Your task to perform on an android device: Search for energizer triple a on ebay.com, select the first entry, and add it to the cart. Image 0: 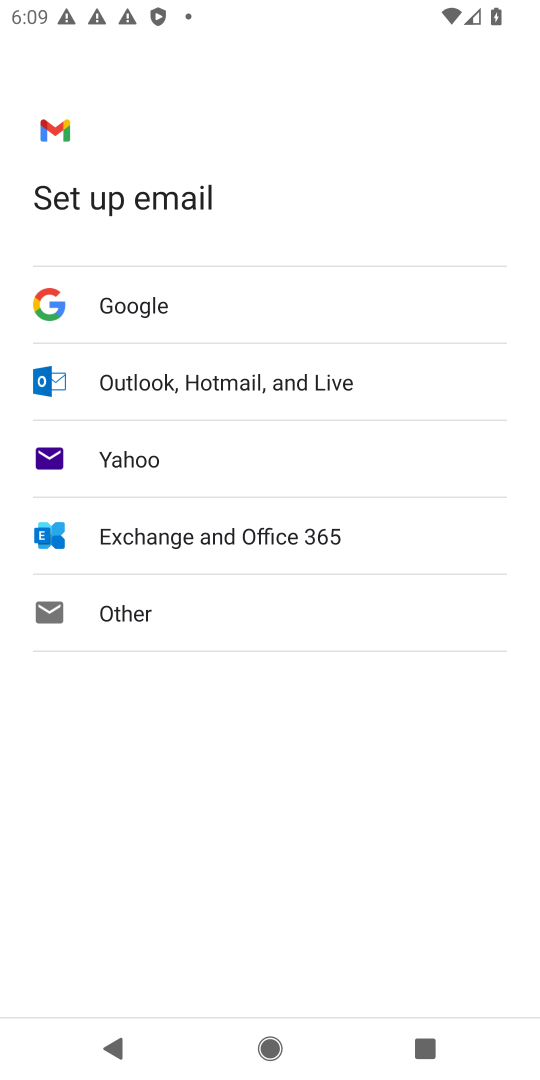
Step 0: press home button
Your task to perform on an android device: Search for energizer triple a on ebay.com, select the first entry, and add it to the cart. Image 1: 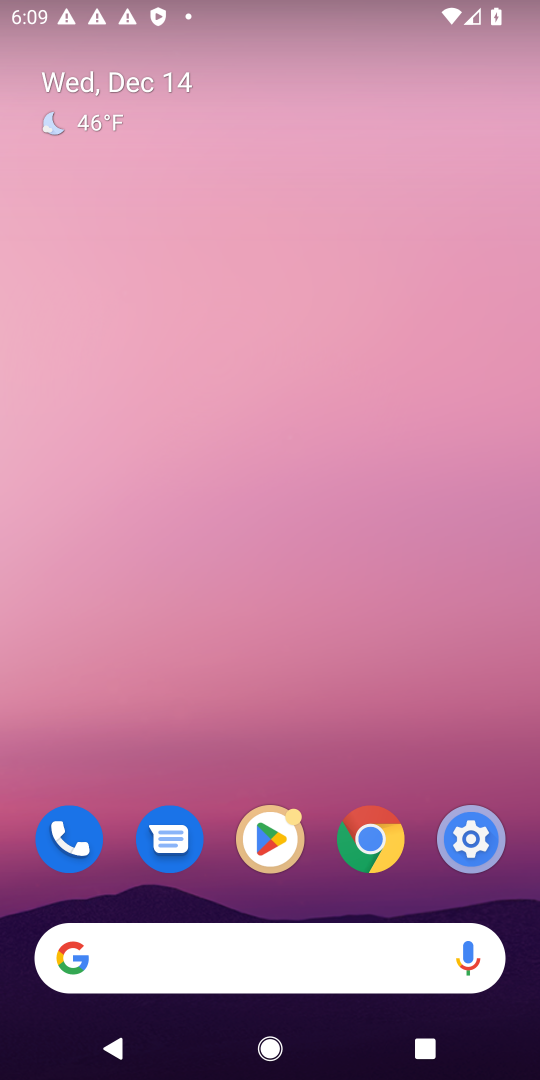
Step 1: click (221, 962)
Your task to perform on an android device: Search for energizer triple a on ebay.com, select the first entry, and add it to the cart. Image 2: 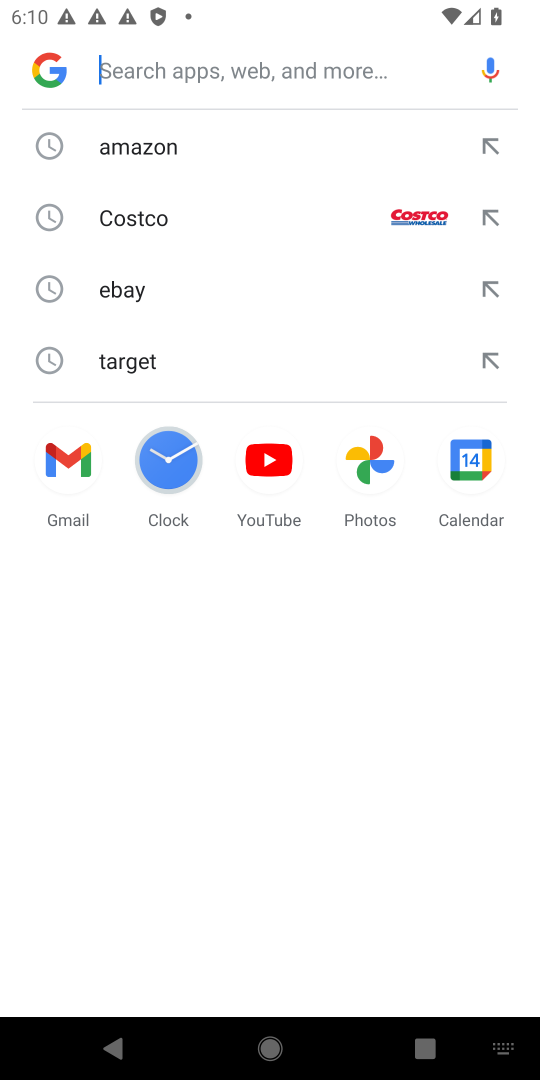
Step 2: click (163, 293)
Your task to perform on an android device: Search for energizer triple a on ebay.com, select the first entry, and add it to the cart. Image 3: 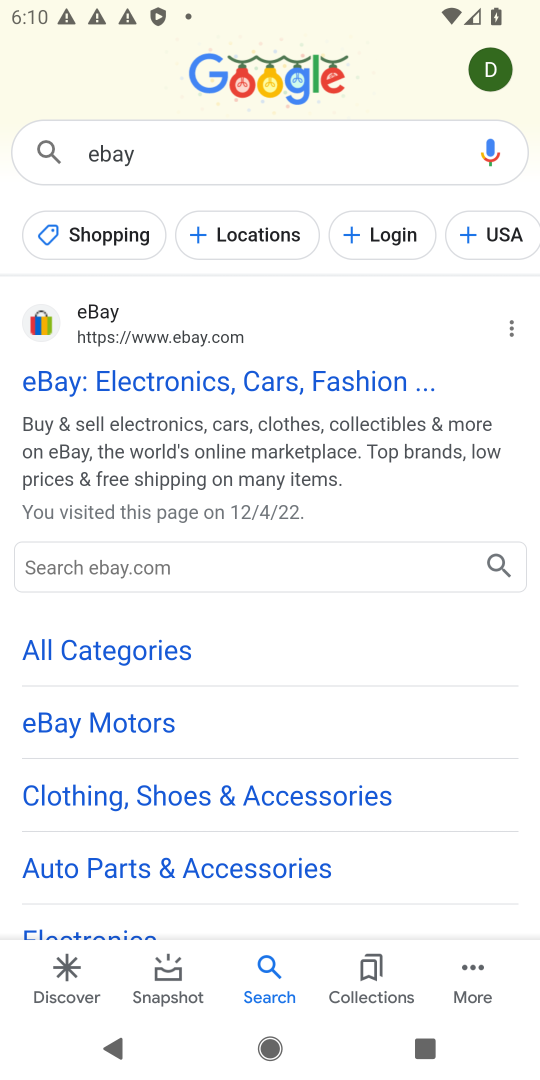
Step 3: click (191, 352)
Your task to perform on an android device: Search for energizer triple a on ebay.com, select the first entry, and add it to the cart. Image 4: 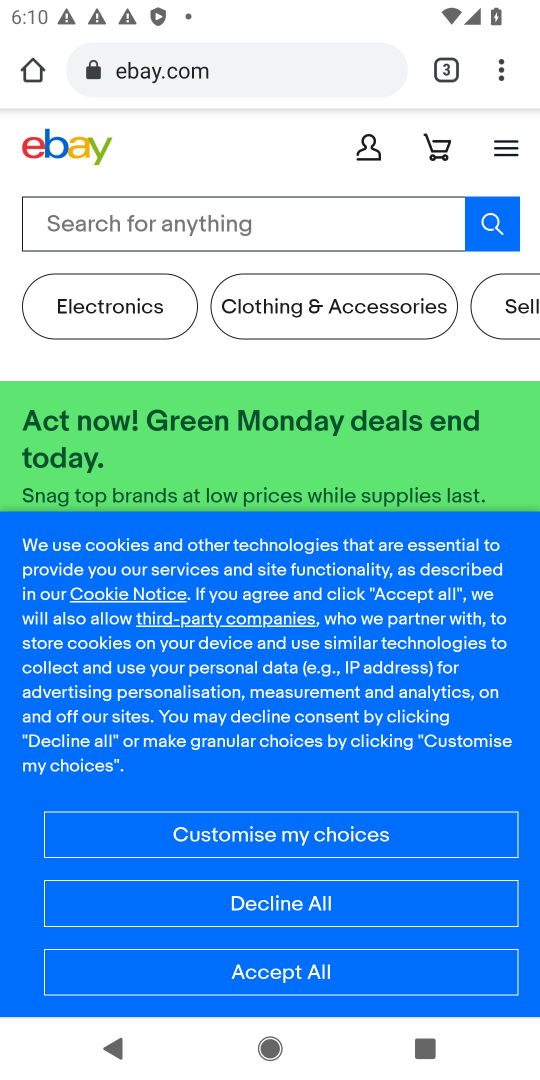
Step 4: click (158, 234)
Your task to perform on an android device: Search for energizer triple a on ebay.com, select the first entry, and add it to the cart. Image 5: 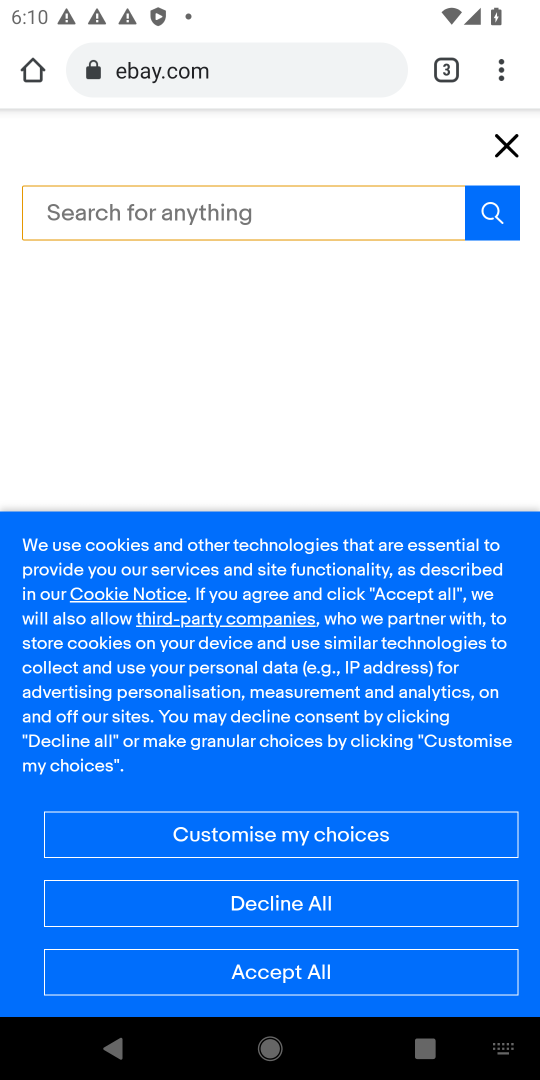
Step 5: type "energizer triplee a"
Your task to perform on an android device: Search for energizer triple a on ebay.com, select the first entry, and add it to the cart. Image 6: 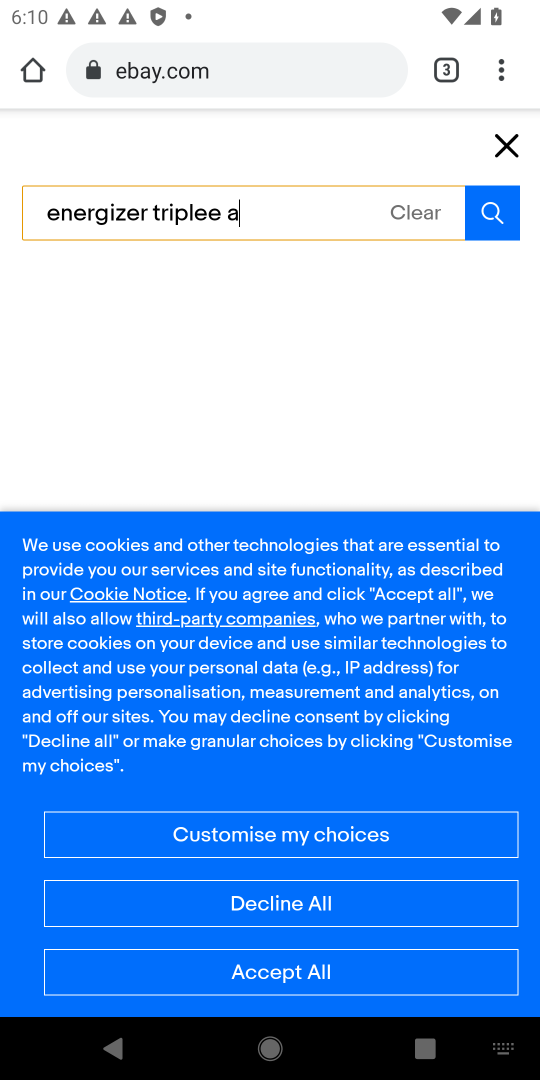
Step 6: click (493, 233)
Your task to perform on an android device: Search for energizer triple a on ebay.com, select the first entry, and add it to the cart. Image 7: 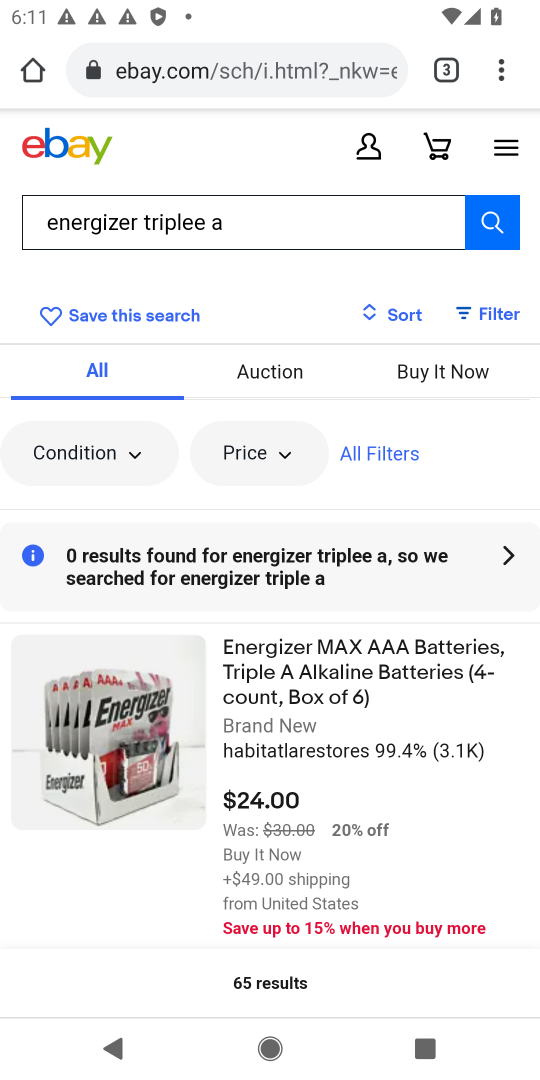
Step 7: click (290, 654)
Your task to perform on an android device: Search for energizer triple a on ebay.com, select the first entry, and add it to the cart. Image 8: 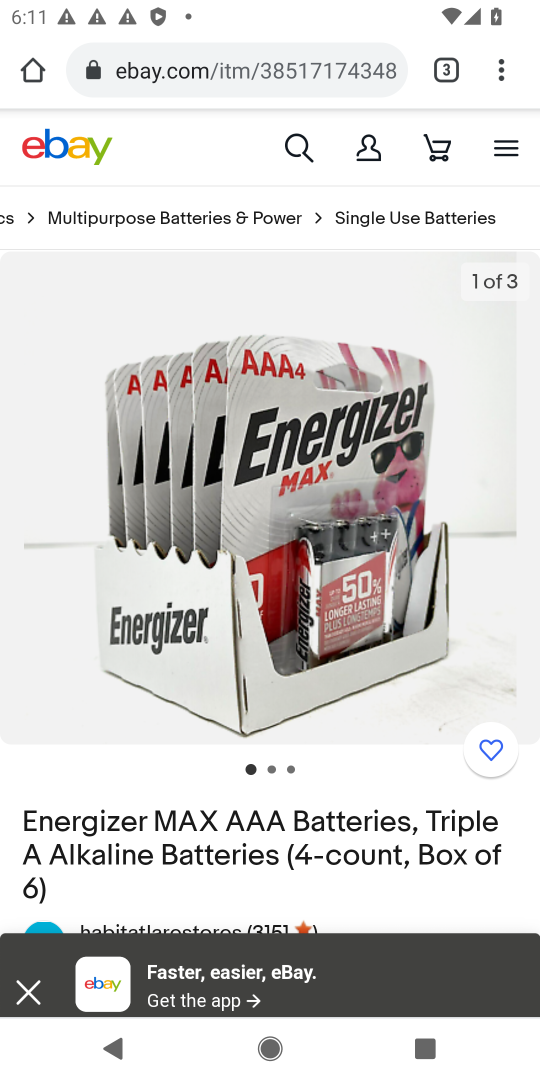
Step 8: drag from (201, 814) to (221, 578)
Your task to perform on an android device: Search for energizer triple a on ebay.com, select the first entry, and add it to the cart. Image 9: 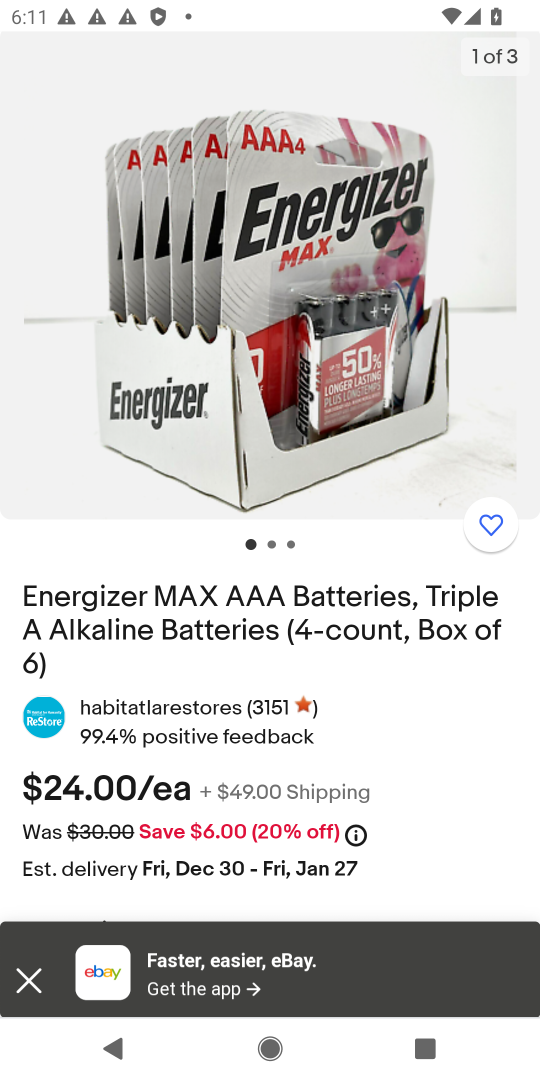
Step 9: click (29, 991)
Your task to perform on an android device: Search for energizer triple a on ebay.com, select the first entry, and add it to the cart. Image 10: 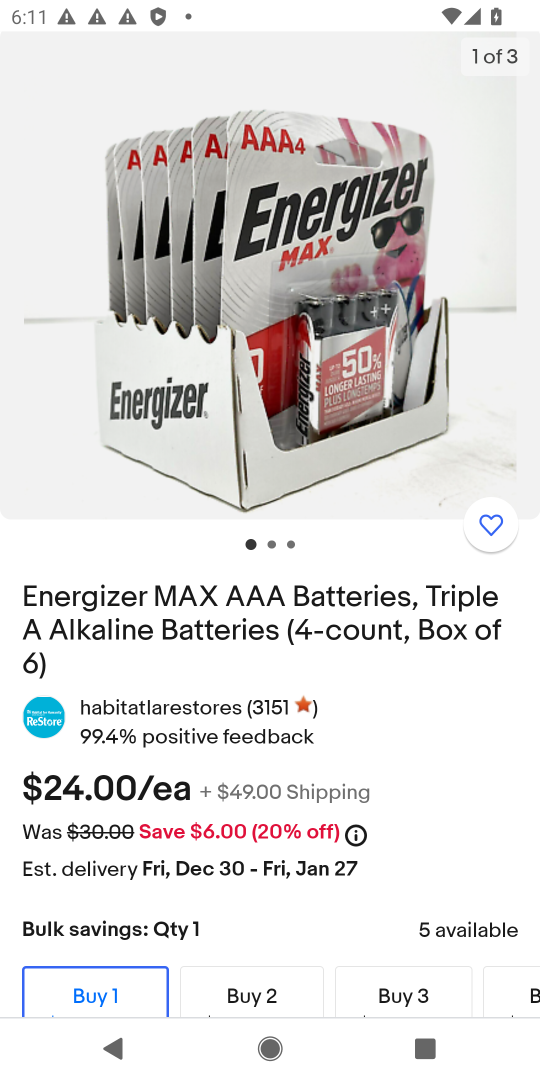
Step 10: drag from (192, 912) to (213, 478)
Your task to perform on an android device: Search for energizer triple a on ebay.com, select the first entry, and add it to the cart. Image 11: 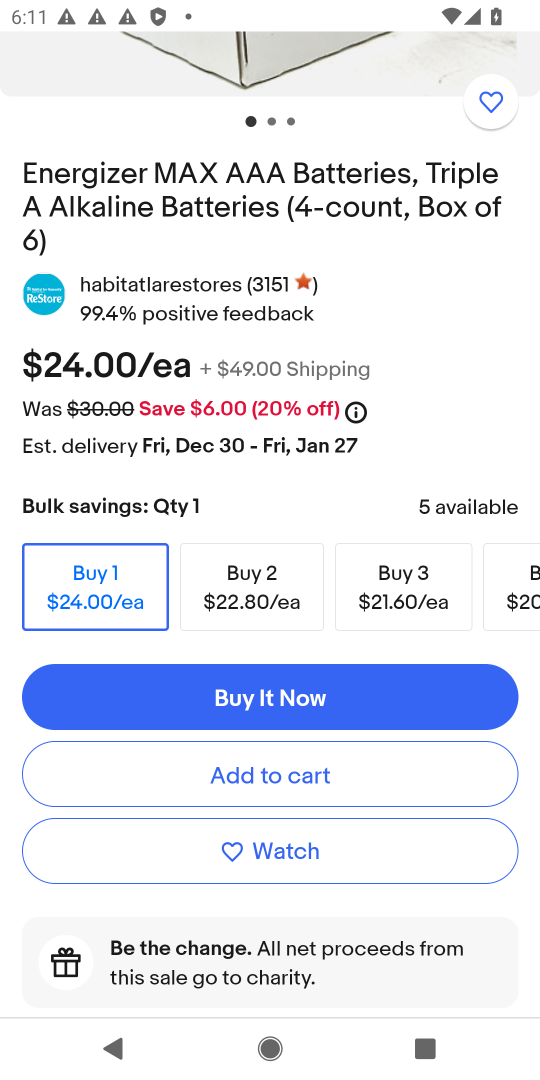
Step 11: click (264, 771)
Your task to perform on an android device: Search for energizer triple a on ebay.com, select the first entry, and add it to the cart. Image 12: 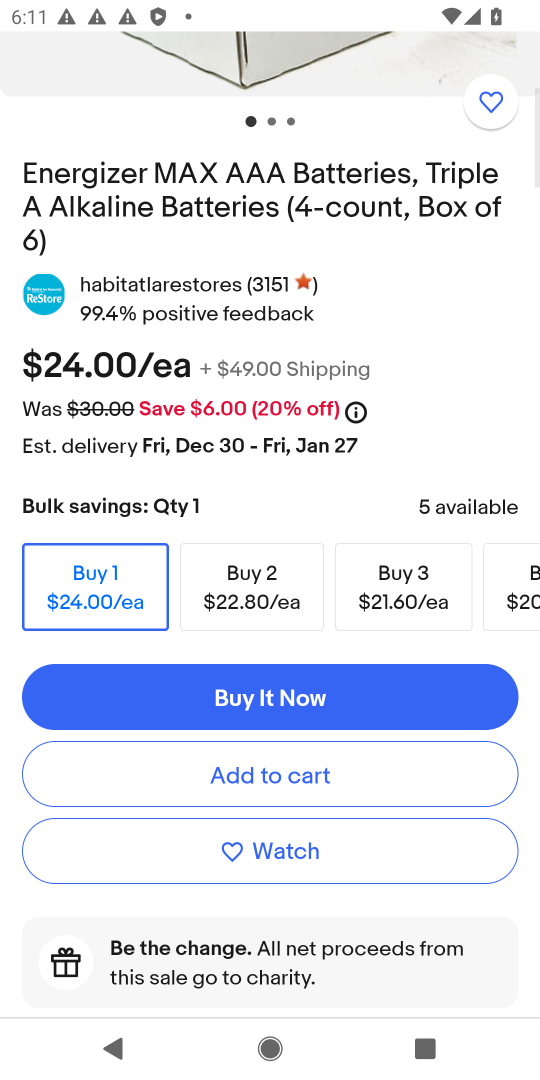
Step 12: task complete